Your task to perform on an android device: see sites visited before in the chrome app Image 0: 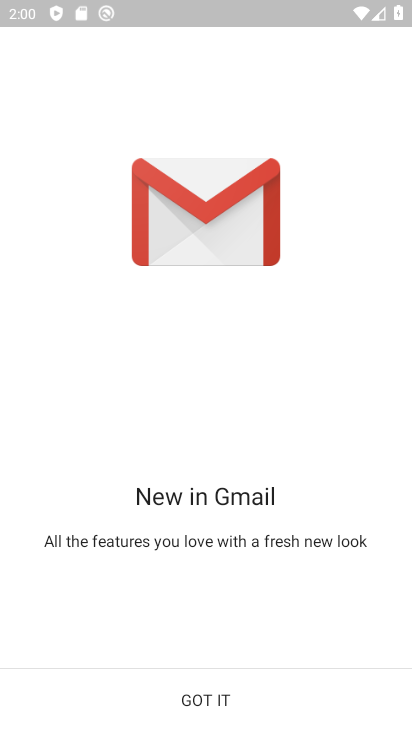
Step 0: press home button
Your task to perform on an android device: see sites visited before in the chrome app Image 1: 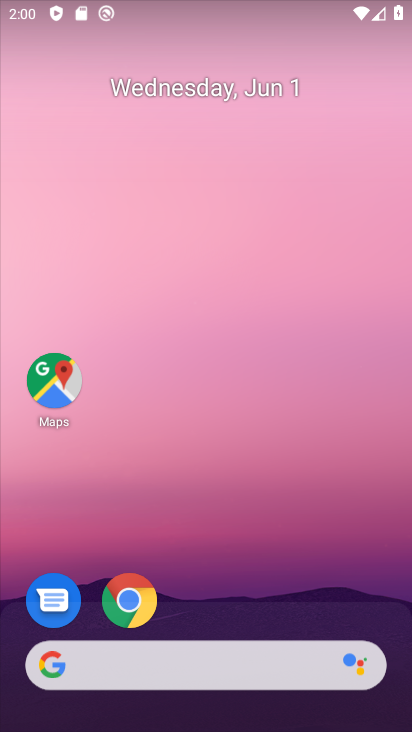
Step 1: click (144, 612)
Your task to perform on an android device: see sites visited before in the chrome app Image 2: 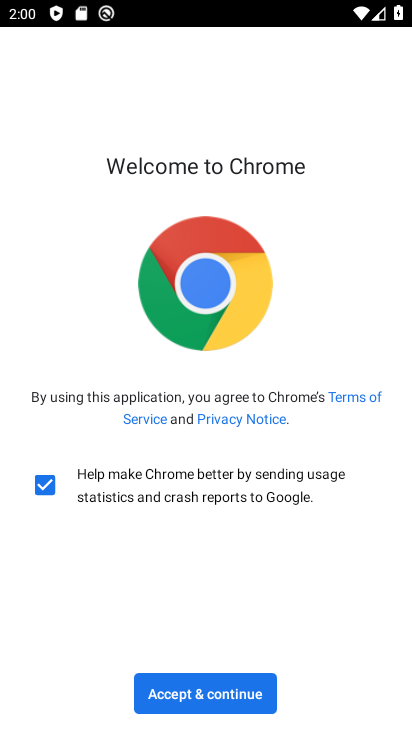
Step 2: click (216, 698)
Your task to perform on an android device: see sites visited before in the chrome app Image 3: 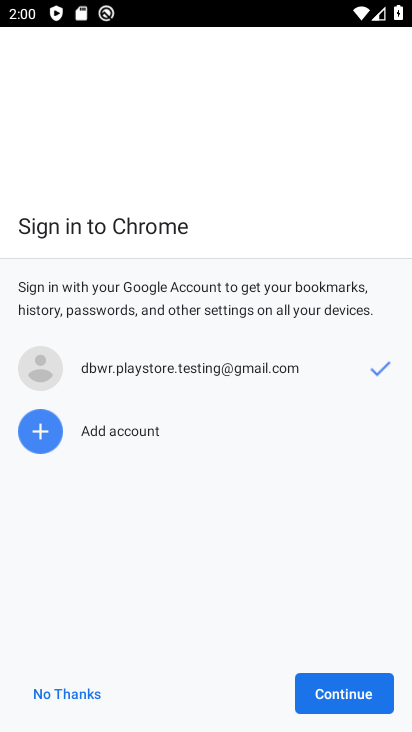
Step 3: click (333, 701)
Your task to perform on an android device: see sites visited before in the chrome app Image 4: 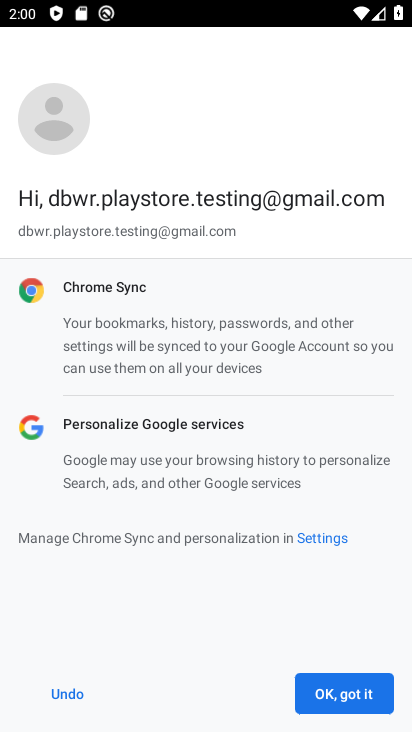
Step 4: click (333, 701)
Your task to perform on an android device: see sites visited before in the chrome app Image 5: 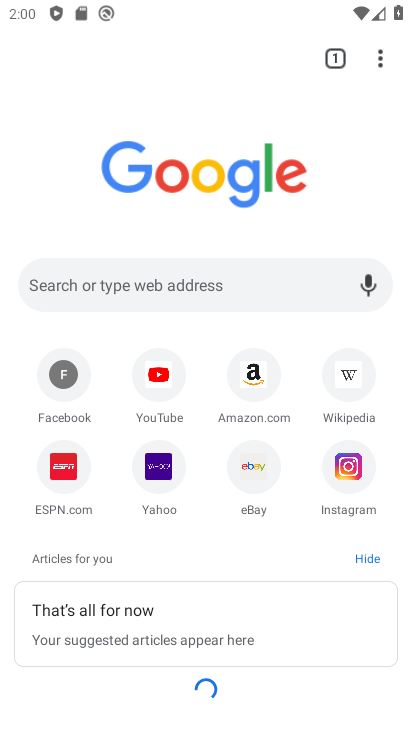
Step 5: click (382, 45)
Your task to perform on an android device: see sites visited before in the chrome app Image 6: 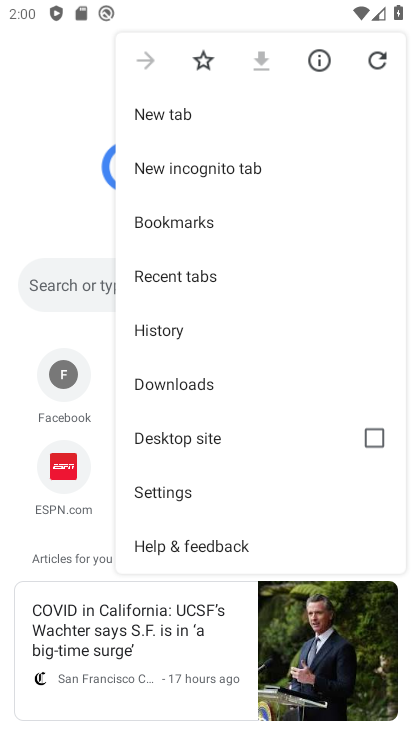
Step 6: click (202, 329)
Your task to perform on an android device: see sites visited before in the chrome app Image 7: 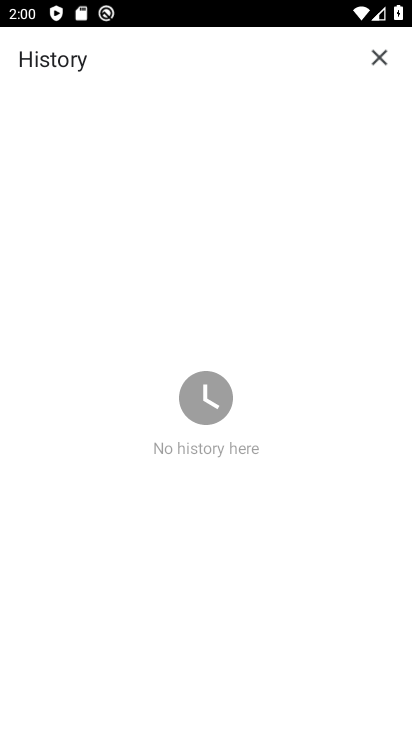
Step 7: task complete